Your task to perform on an android device: set an alarm Image 0: 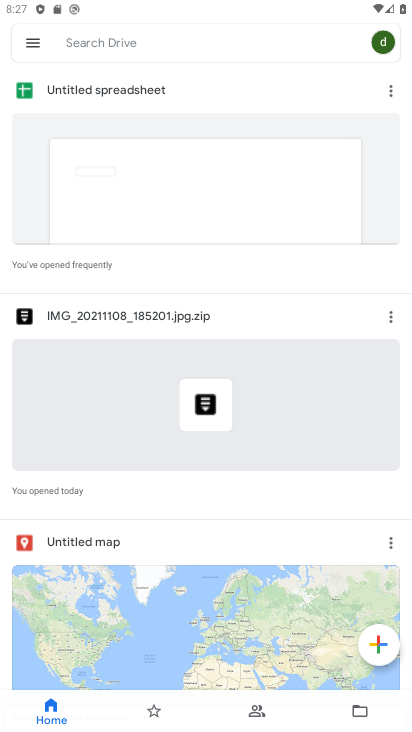
Step 0: press home button
Your task to perform on an android device: set an alarm Image 1: 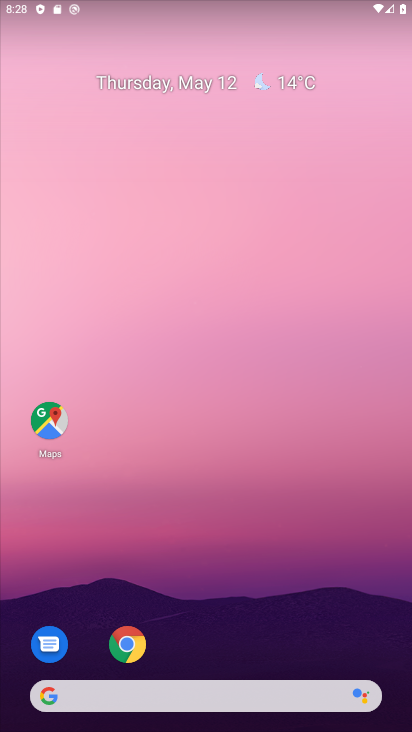
Step 1: drag from (278, 639) to (304, 56)
Your task to perform on an android device: set an alarm Image 2: 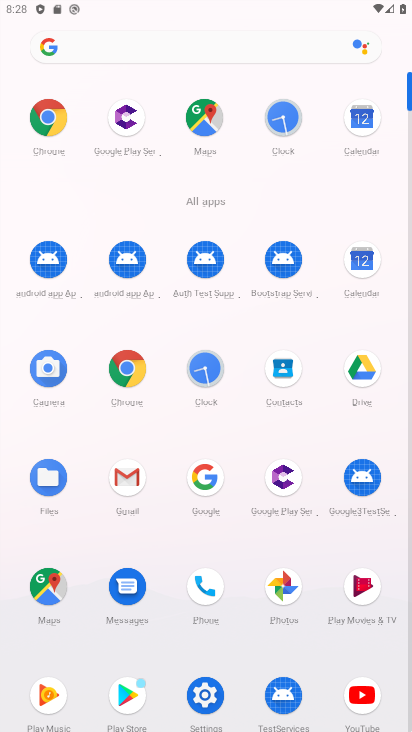
Step 2: click (187, 375)
Your task to perform on an android device: set an alarm Image 3: 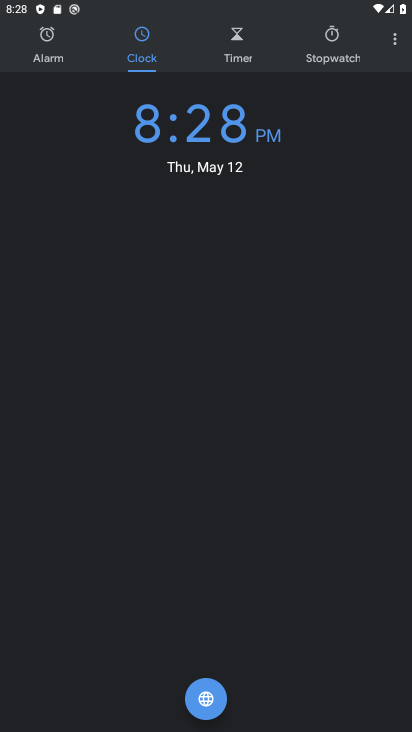
Step 3: click (61, 54)
Your task to perform on an android device: set an alarm Image 4: 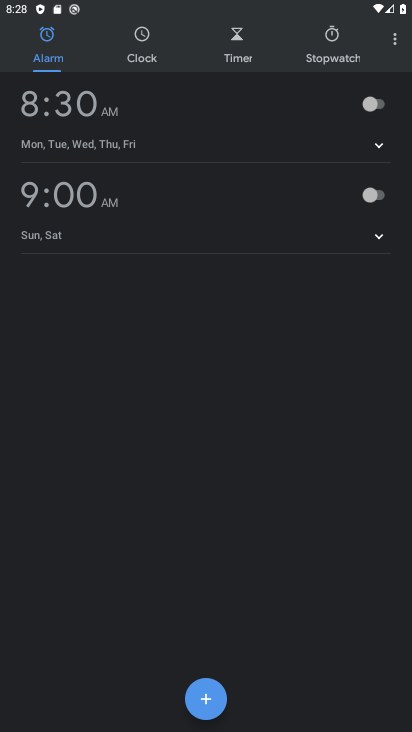
Step 4: click (206, 701)
Your task to perform on an android device: set an alarm Image 5: 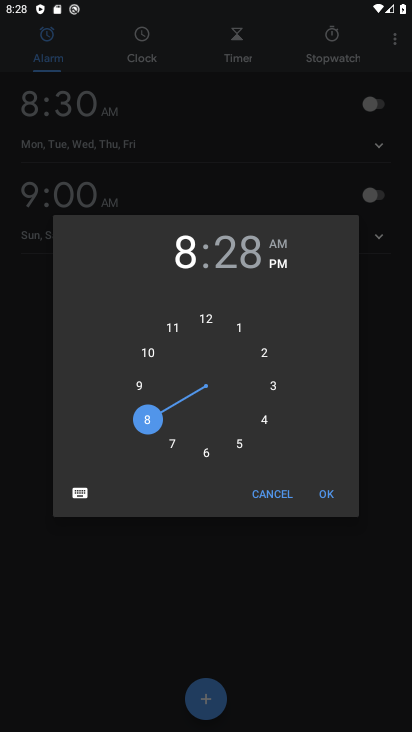
Step 5: click (323, 491)
Your task to perform on an android device: set an alarm Image 6: 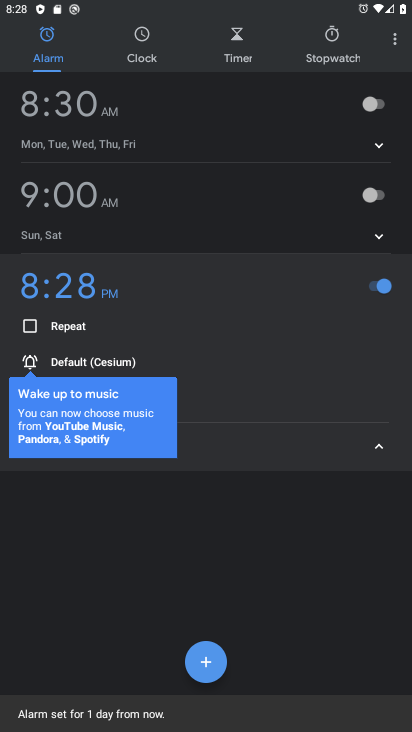
Step 6: task complete